Your task to perform on an android device: Go to Google maps Image 0: 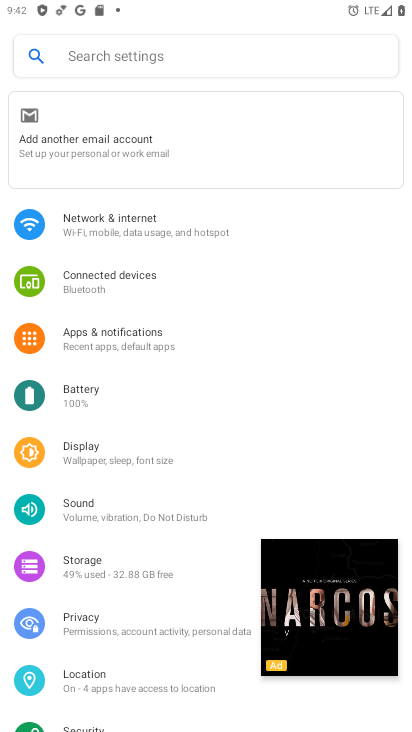
Step 0: click (374, 559)
Your task to perform on an android device: Go to Google maps Image 1: 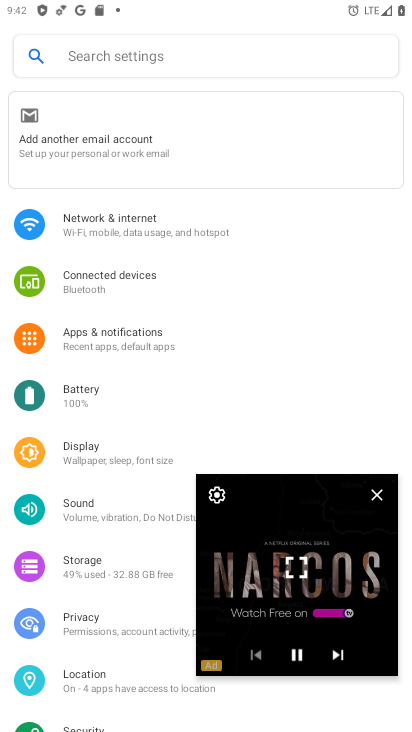
Step 1: click (373, 500)
Your task to perform on an android device: Go to Google maps Image 2: 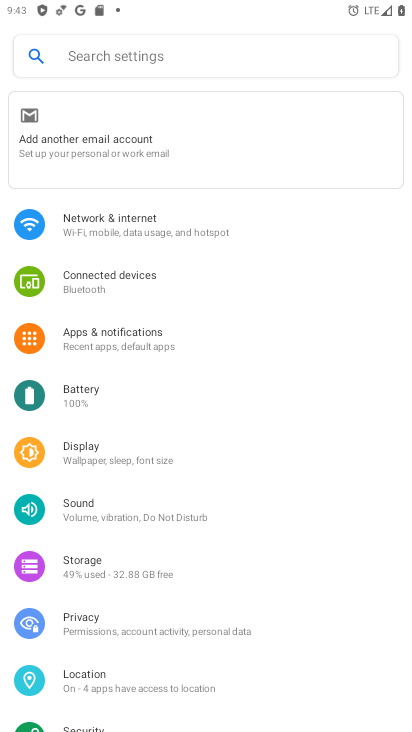
Step 2: press home button
Your task to perform on an android device: Go to Google maps Image 3: 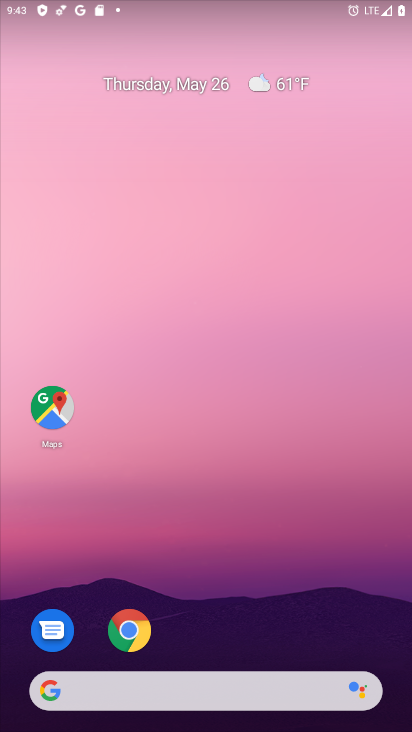
Step 3: click (59, 411)
Your task to perform on an android device: Go to Google maps Image 4: 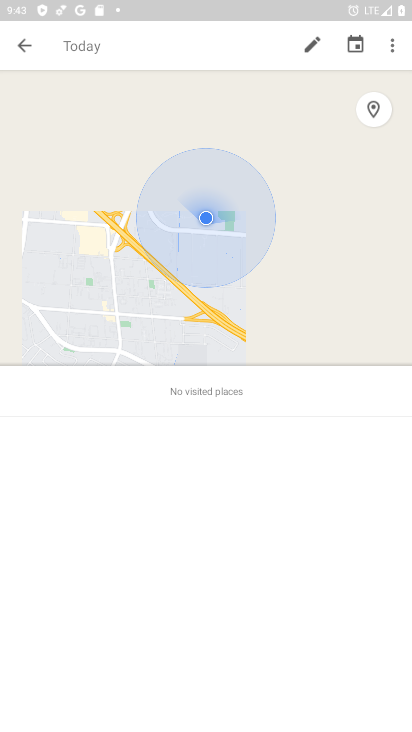
Step 4: click (17, 40)
Your task to perform on an android device: Go to Google maps Image 5: 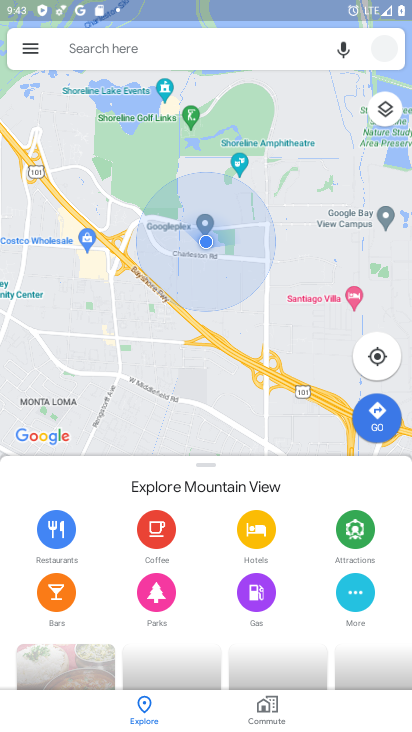
Step 5: task complete